Your task to perform on an android device: Add "usb-a" to the cart on ebay Image 0: 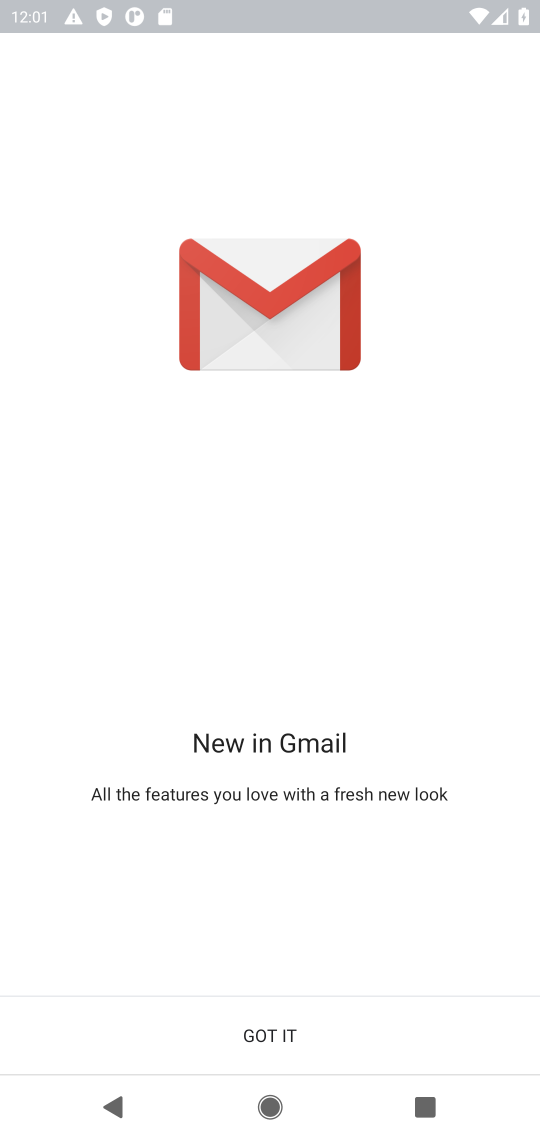
Step 0: press home button
Your task to perform on an android device: Add "usb-a" to the cart on ebay Image 1: 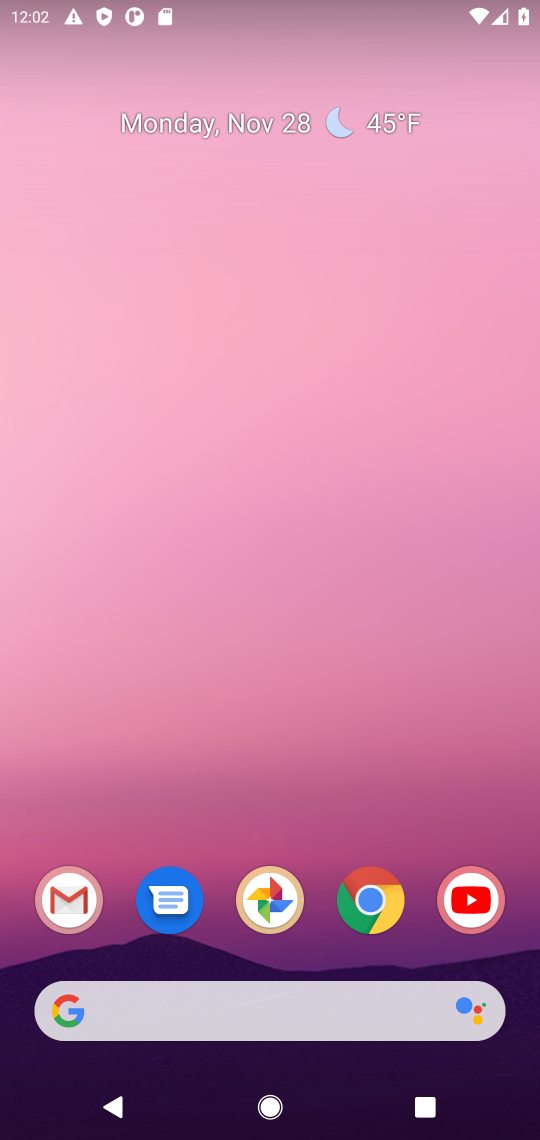
Step 1: click (365, 913)
Your task to perform on an android device: Add "usb-a" to the cart on ebay Image 2: 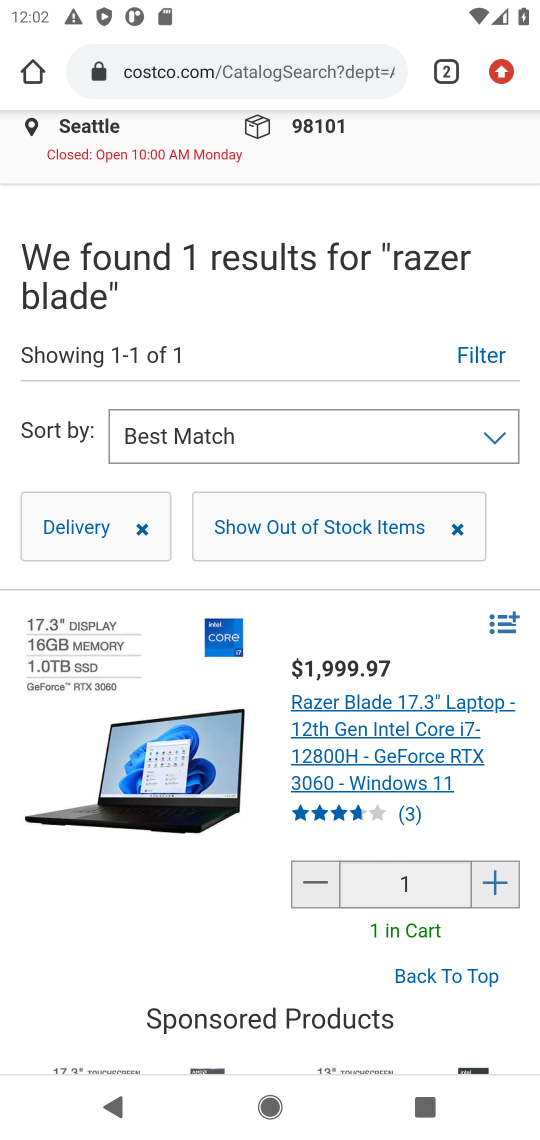
Step 2: click (229, 73)
Your task to perform on an android device: Add "usb-a" to the cart on ebay Image 3: 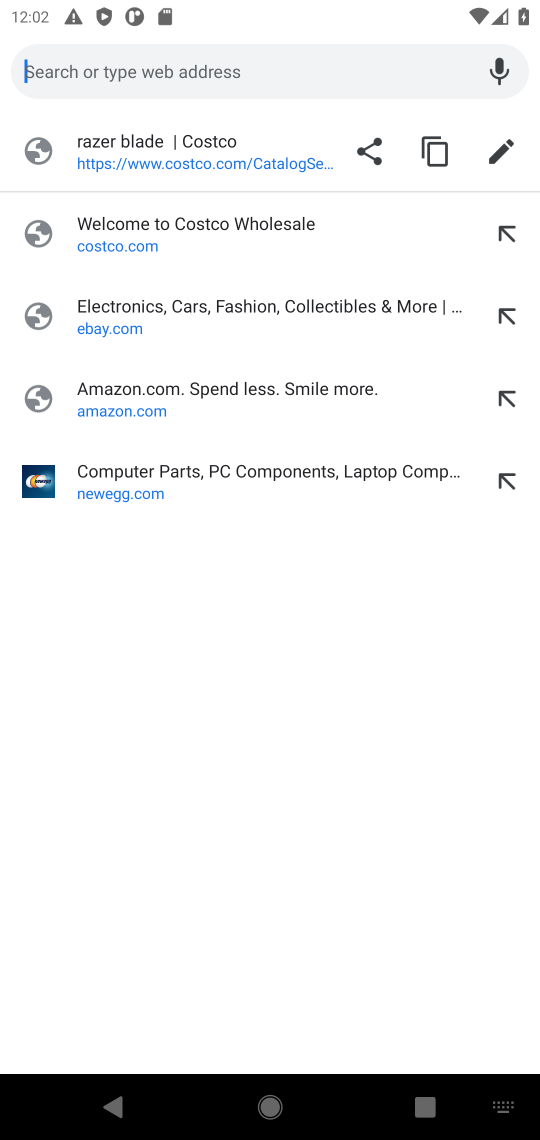
Step 3: click (103, 320)
Your task to perform on an android device: Add "usb-a" to the cart on ebay Image 4: 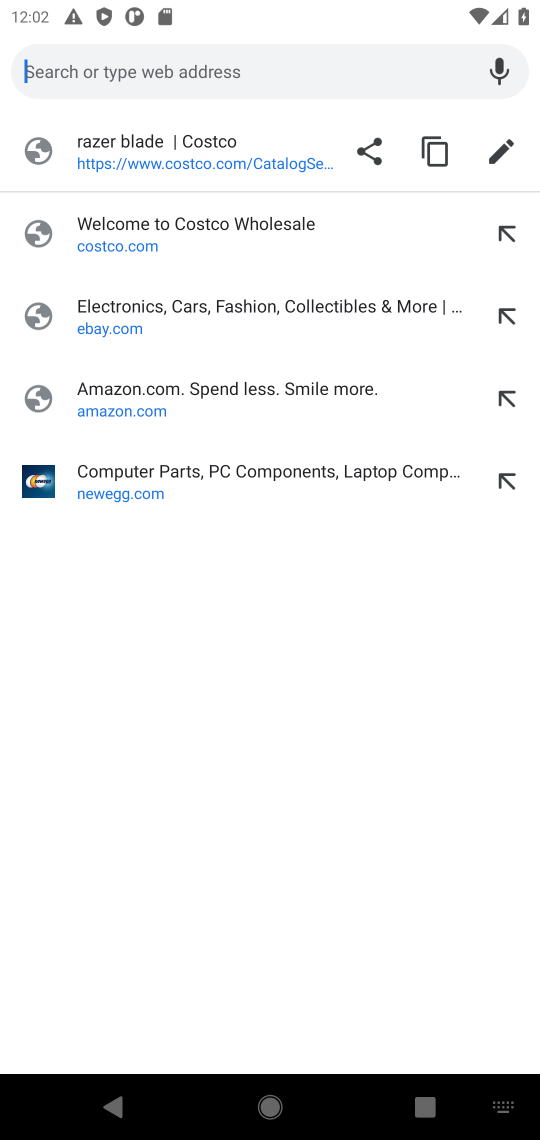
Step 4: click (103, 320)
Your task to perform on an android device: Add "usb-a" to the cart on ebay Image 5: 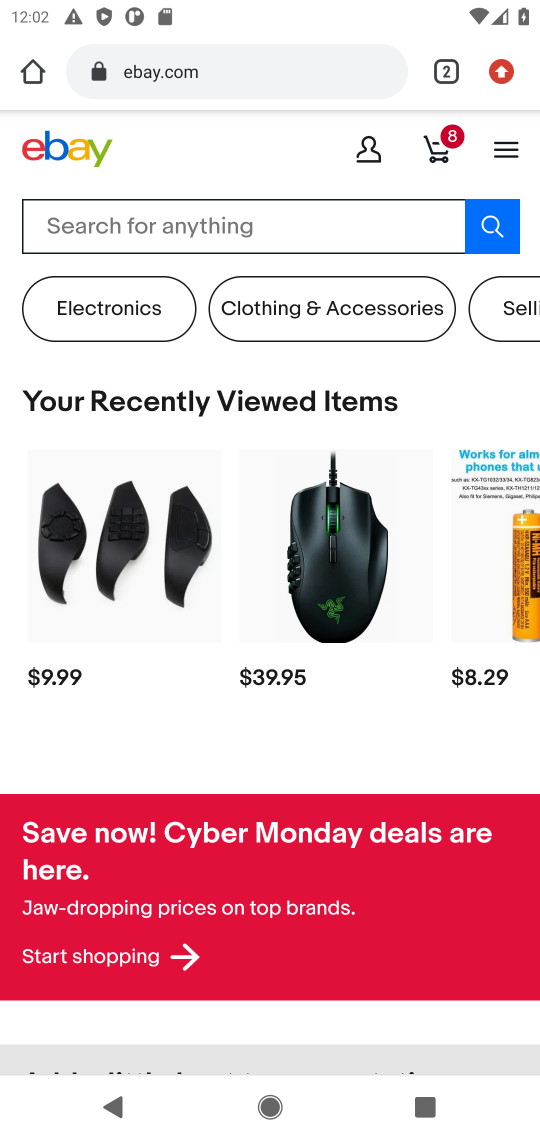
Step 5: click (106, 226)
Your task to perform on an android device: Add "usb-a" to the cart on ebay Image 6: 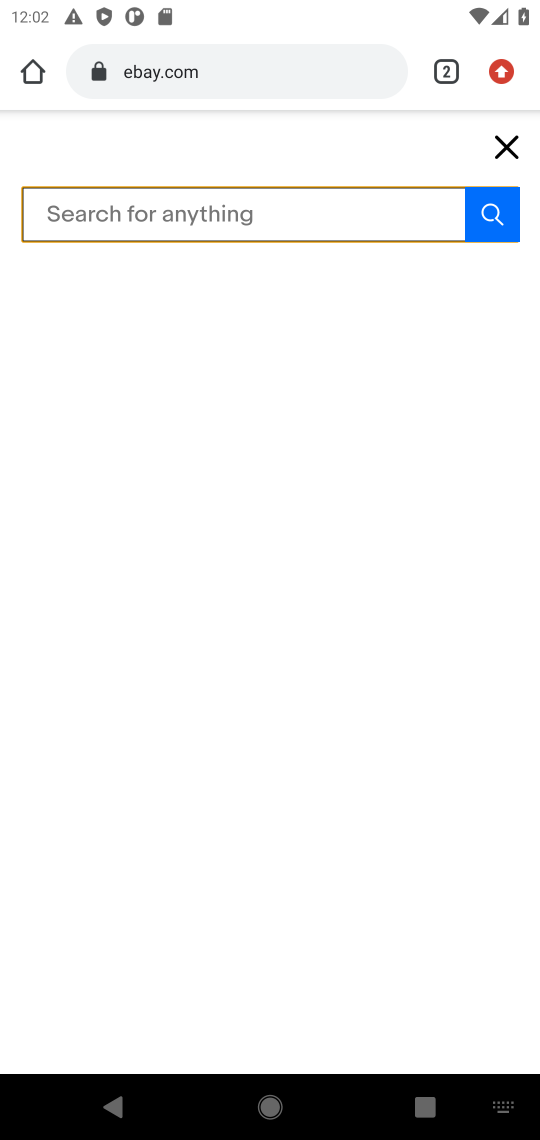
Step 6: type "usb-a"
Your task to perform on an android device: Add "usb-a" to the cart on ebay Image 7: 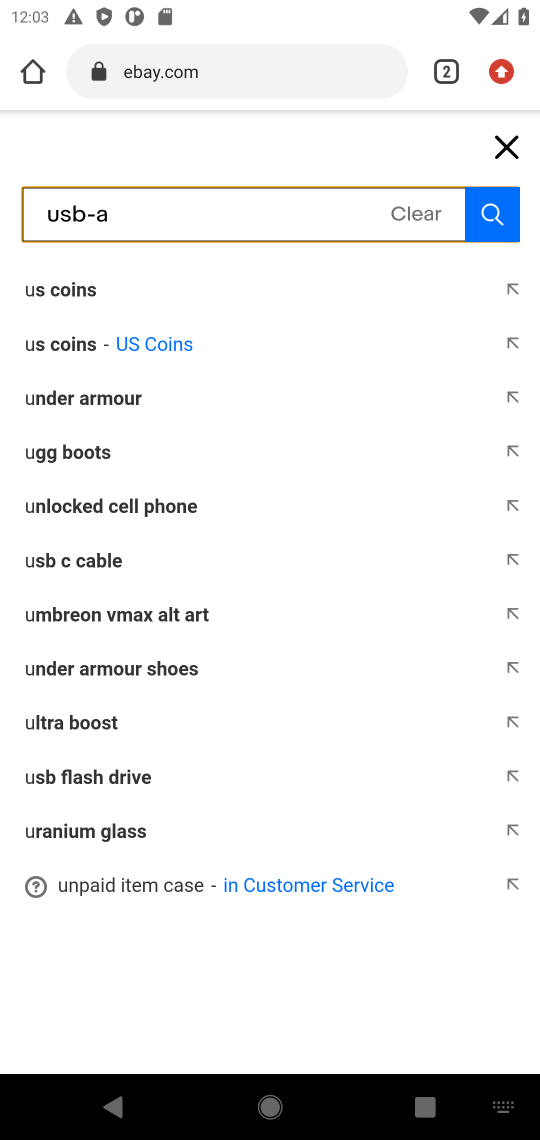
Step 7: click (491, 207)
Your task to perform on an android device: Add "usb-a" to the cart on ebay Image 8: 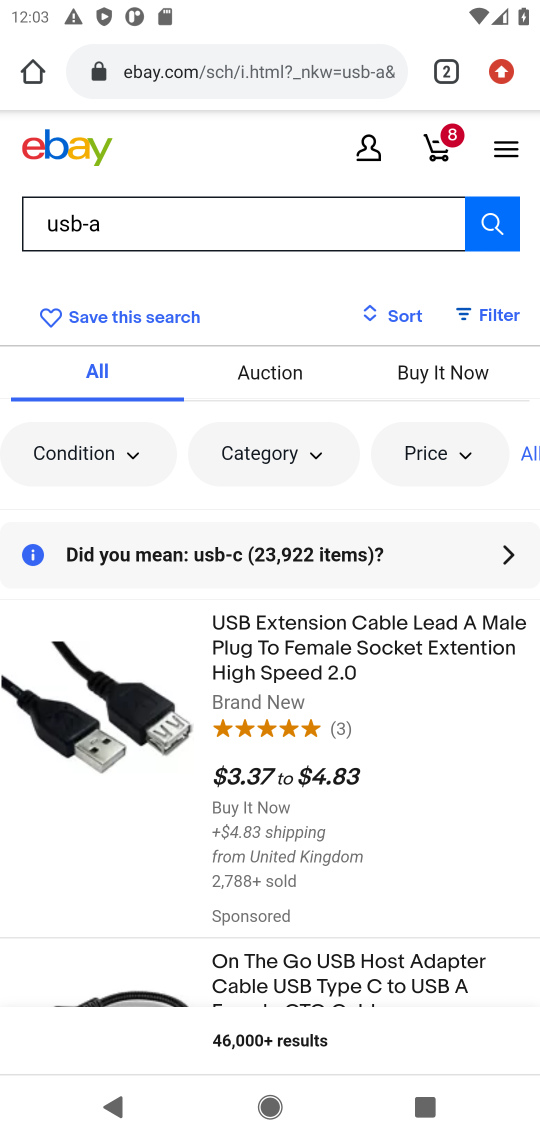
Step 8: drag from (372, 817) to (390, 515)
Your task to perform on an android device: Add "usb-a" to the cart on ebay Image 9: 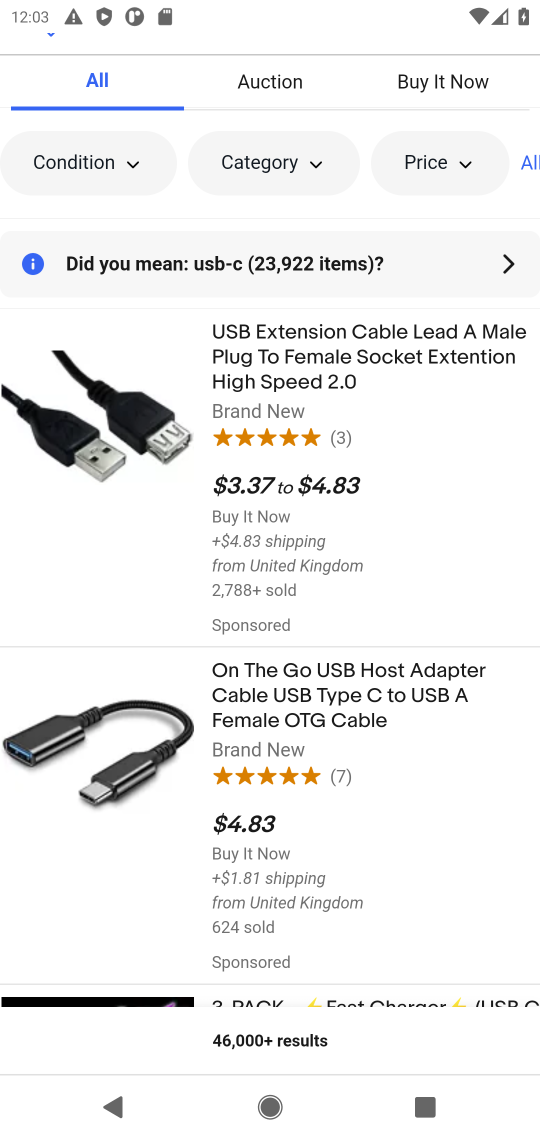
Step 9: drag from (340, 812) to (346, 491)
Your task to perform on an android device: Add "usb-a" to the cart on ebay Image 10: 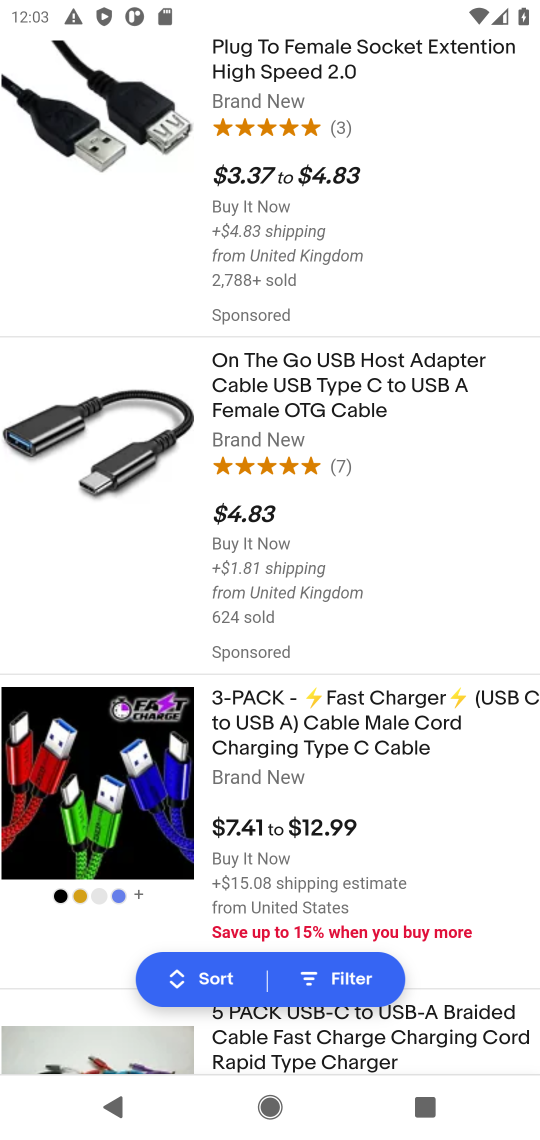
Step 10: click (263, 391)
Your task to perform on an android device: Add "usb-a" to the cart on ebay Image 11: 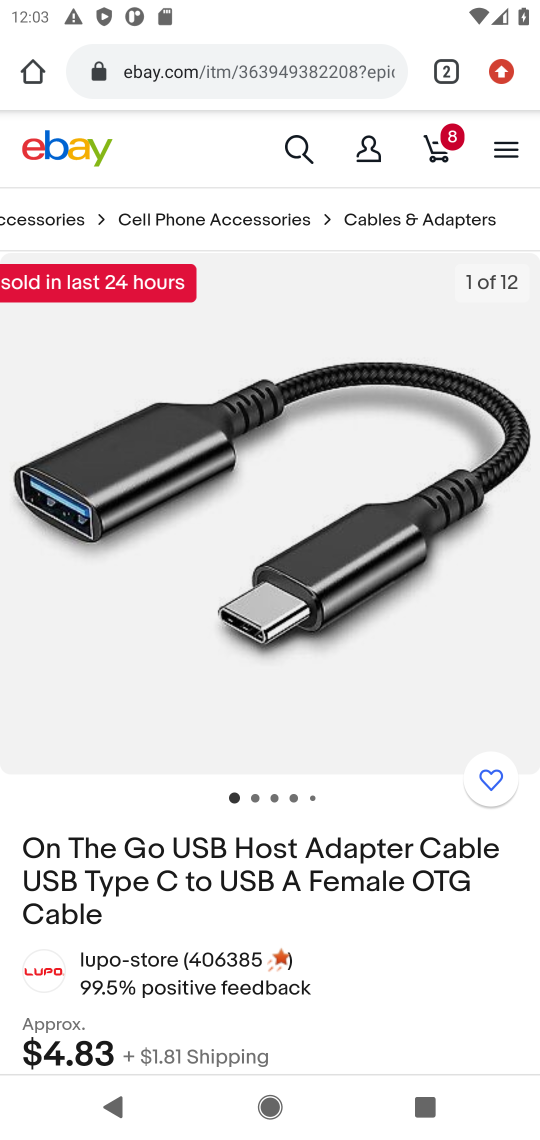
Step 11: drag from (275, 861) to (289, 463)
Your task to perform on an android device: Add "usb-a" to the cart on ebay Image 12: 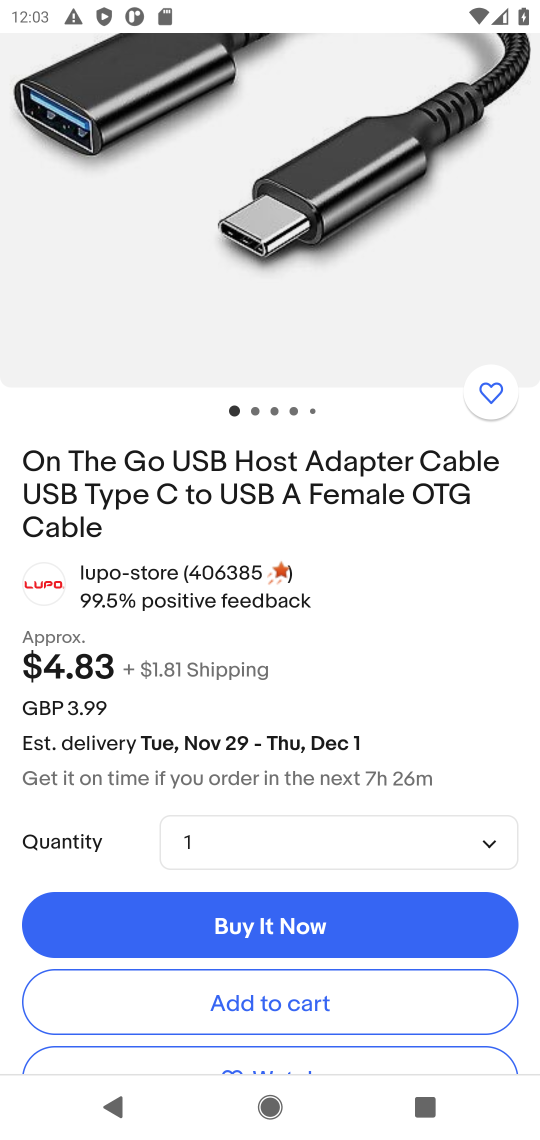
Step 12: drag from (218, 777) to (233, 521)
Your task to perform on an android device: Add "usb-a" to the cart on ebay Image 13: 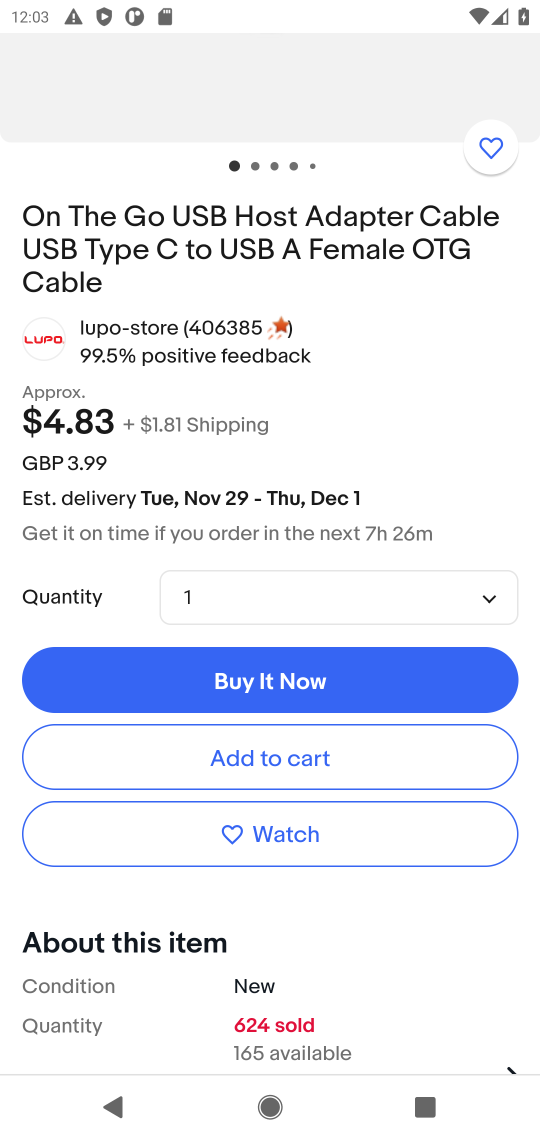
Step 13: click (242, 754)
Your task to perform on an android device: Add "usb-a" to the cart on ebay Image 14: 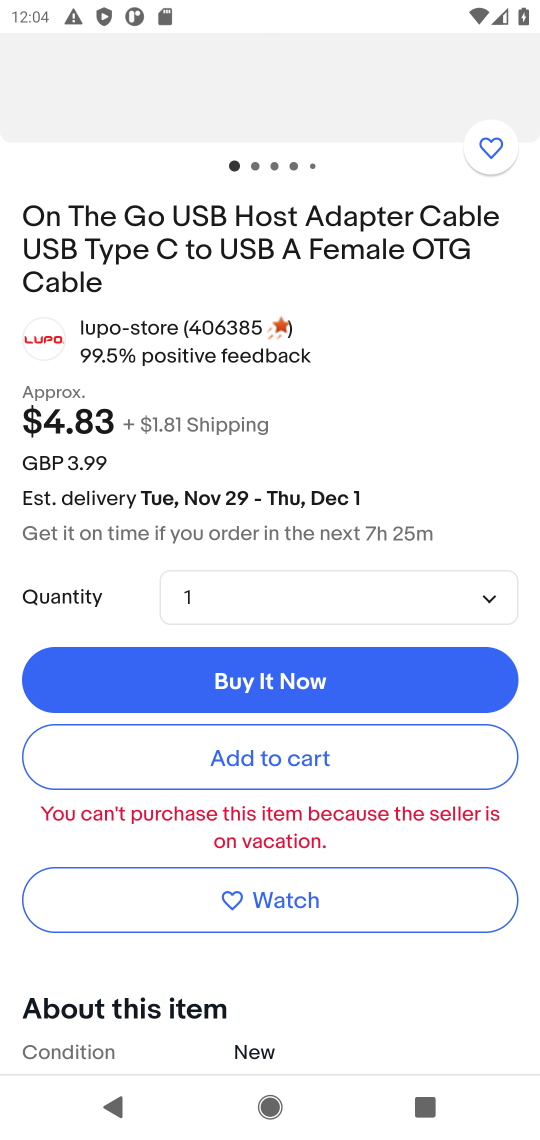
Step 14: press back button
Your task to perform on an android device: Add "usb-a" to the cart on ebay Image 15: 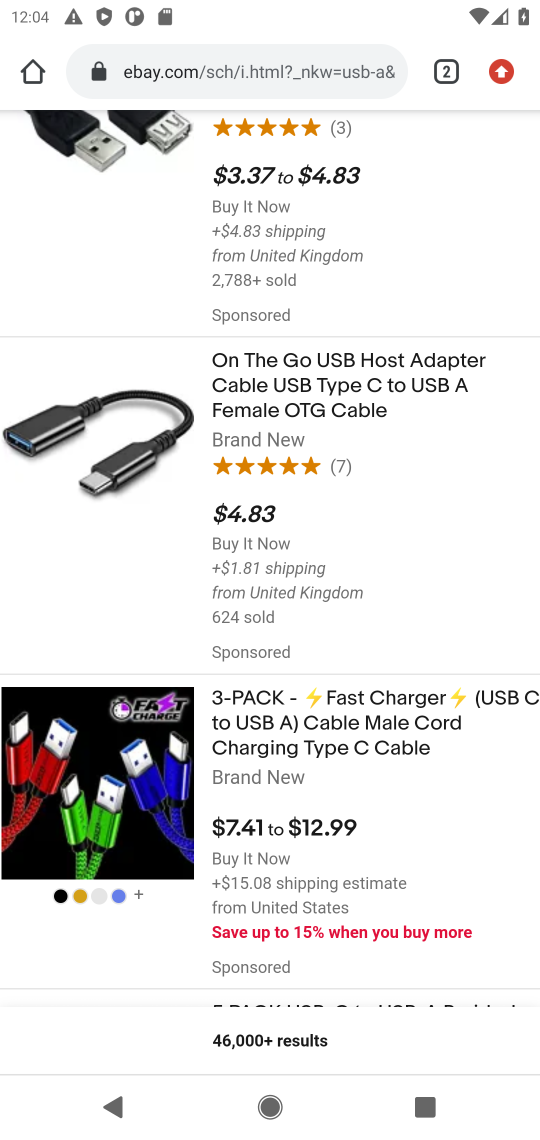
Step 15: drag from (247, 747) to (333, 402)
Your task to perform on an android device: Add "usb-a" to the cart on ebay Image 16: 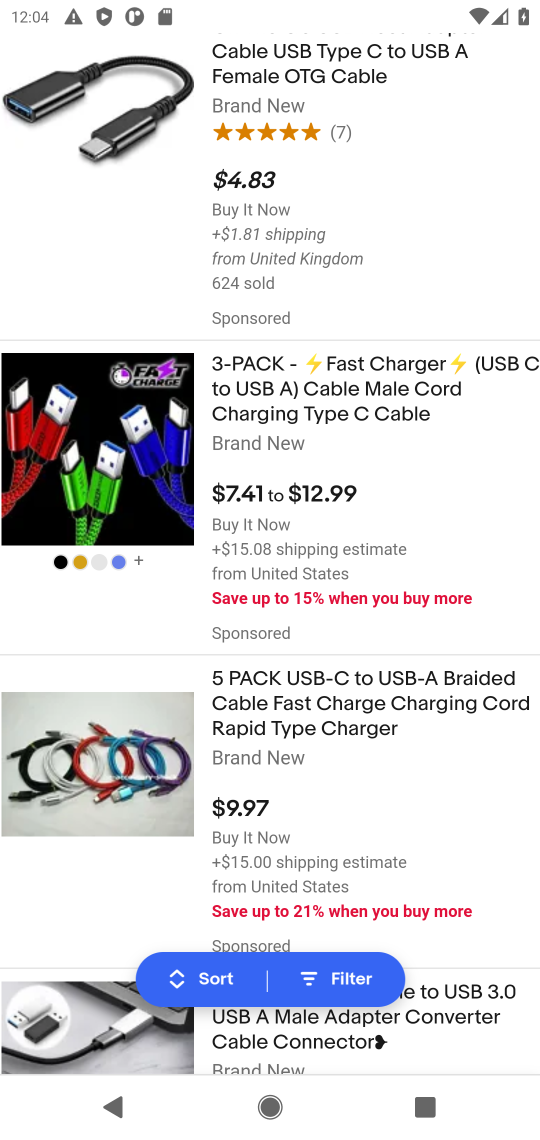
Step 16: drag from (305, 751) to (334, 306)
Your task to perform on an android device: Add "usb-a" to the cart on ebay Image 17: 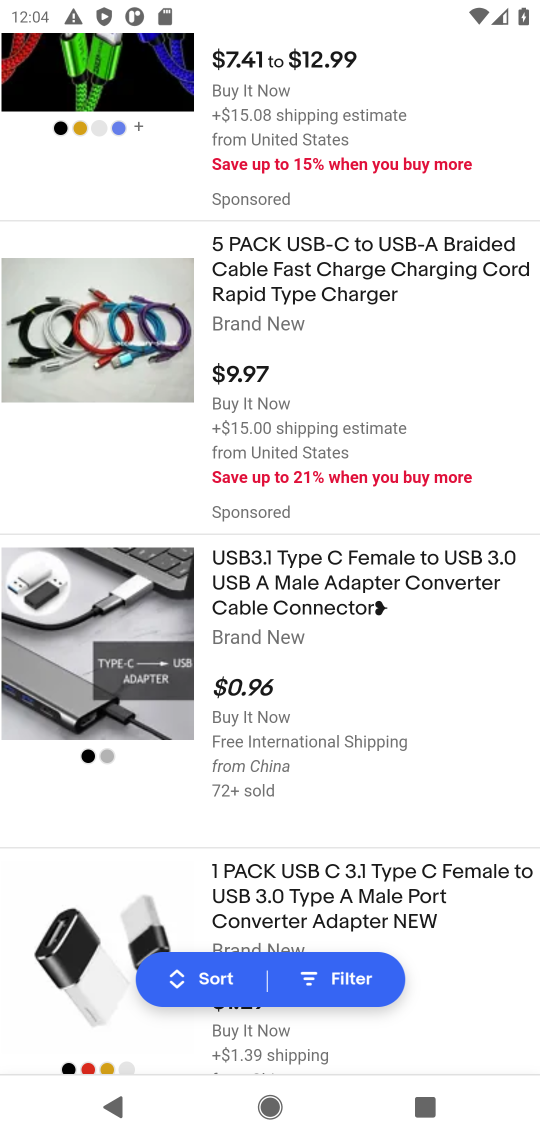
Step 17: click (245, 620)
Your task to perform on an android device: Add "usb-a" to the cart on ebay Image 18: 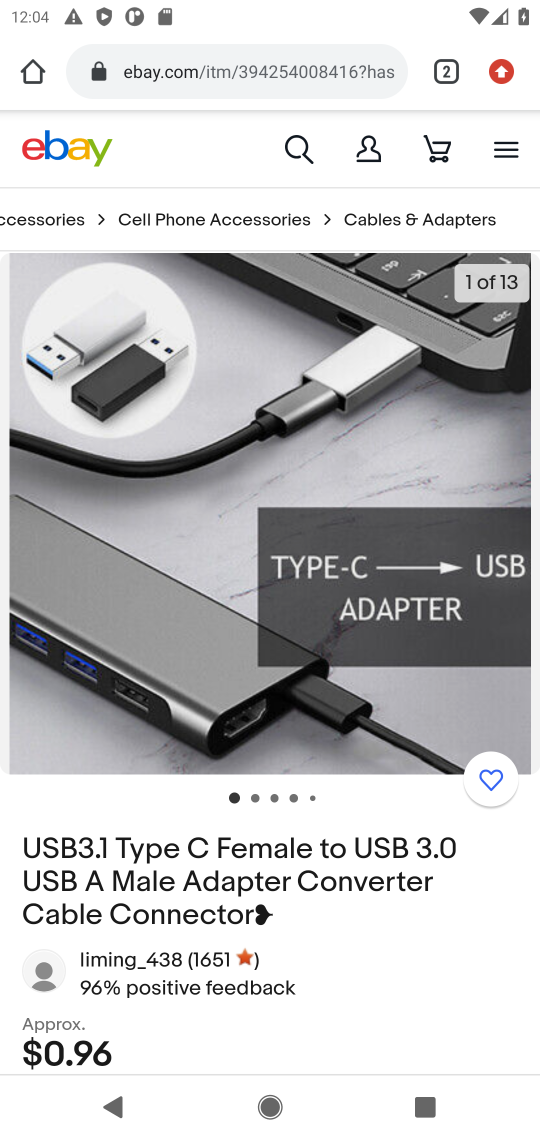
Step 18: drag from (258, 822) to (303, 183)
Your task to perform on an android device: Add "usb-a" to the cart on ebay Image 19: 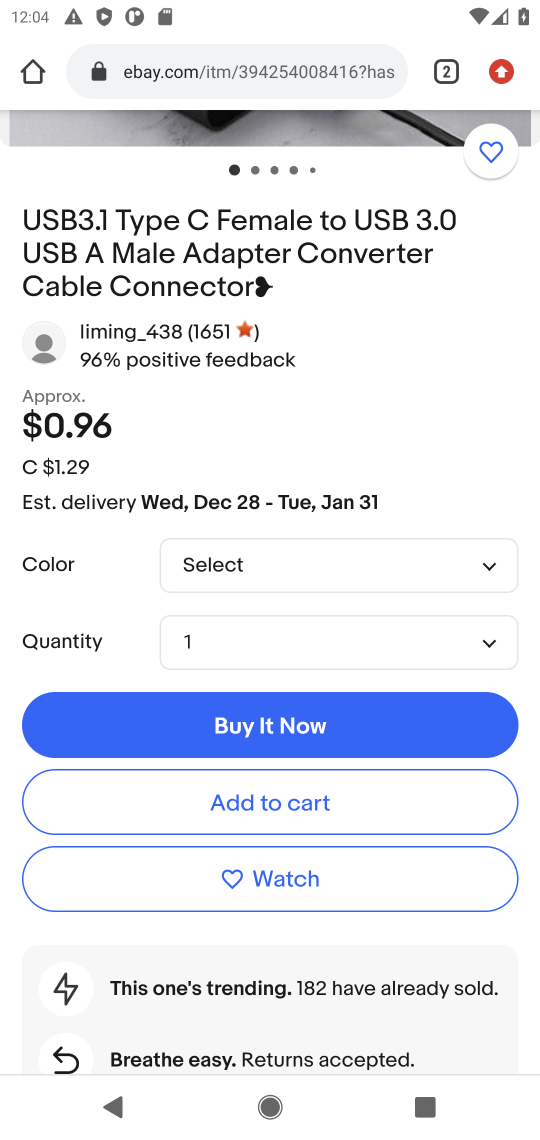
Step 19: click (279, 815)
Your task to perform on an android device: Add "usb-a" to the cart on ebay Image 20: 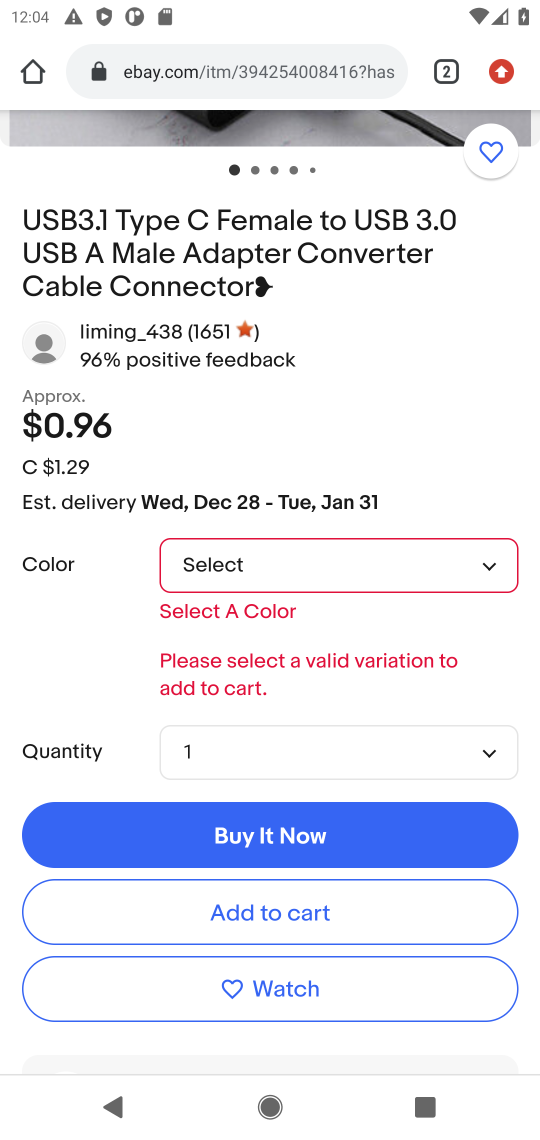
Step 20: click (482, 568)
Your task to perform on an android device: Add "usb-a" to the cart on ebay Image 21: 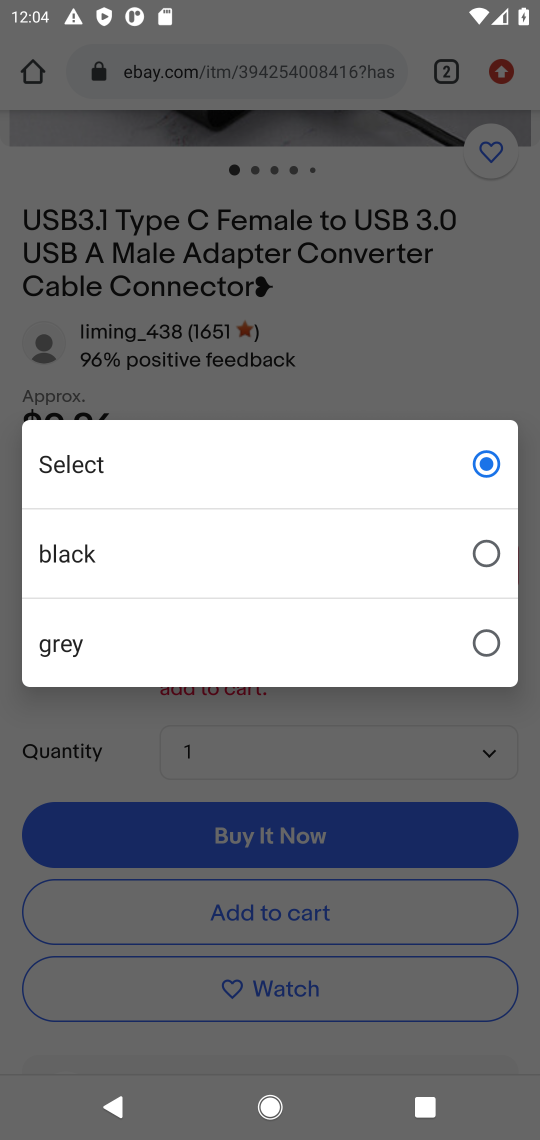
Step 21: click (75, 562)
Your task to perform on an android device: Add "usb-a" to the cart on ebay Image 22: 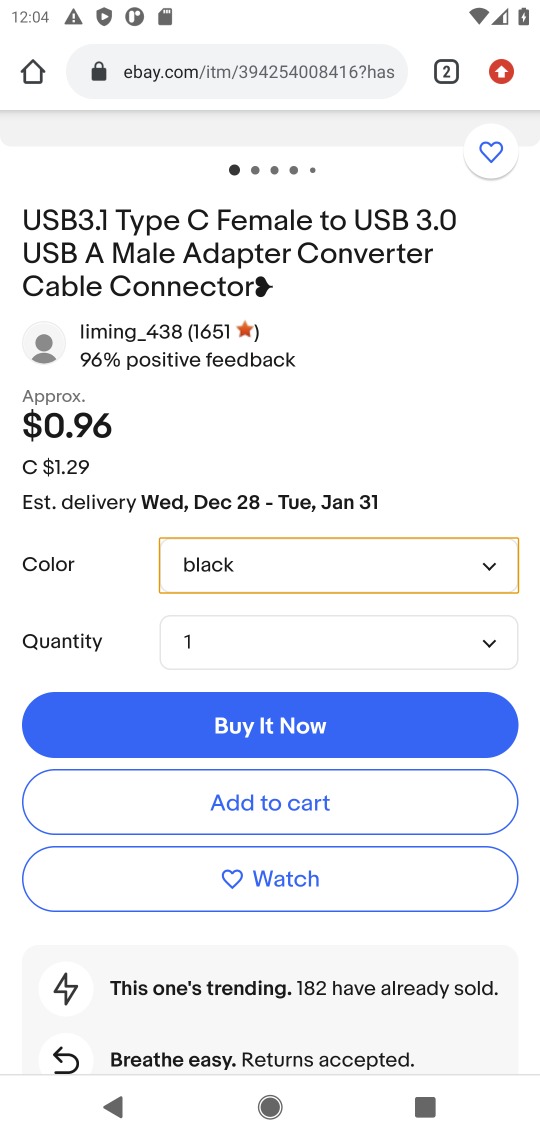
Step 22: click (280, 806)
Your task to perform on an android device: Add "usb-a" to the cart on ebay Image 23: 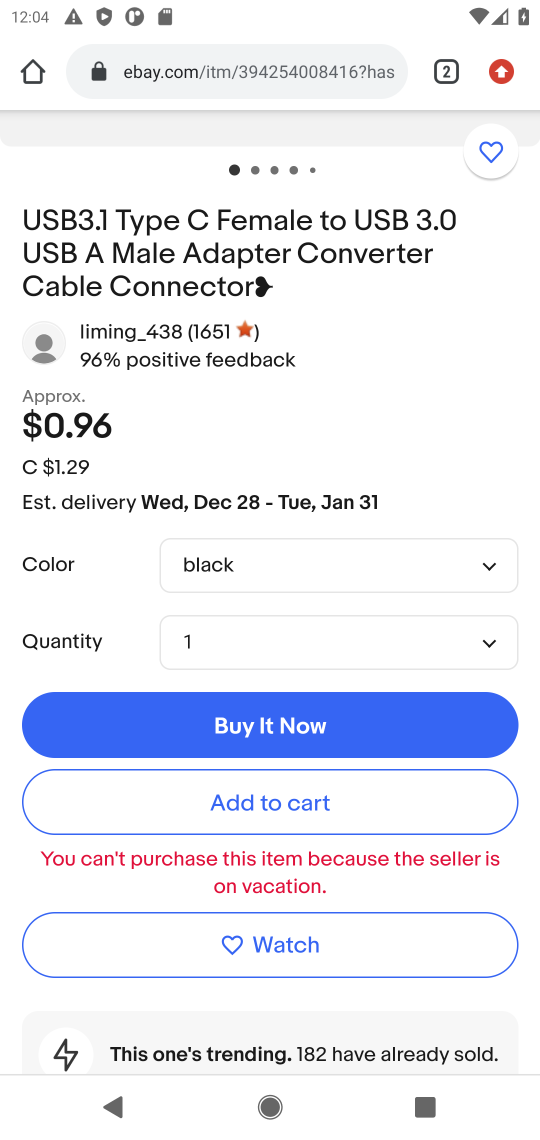
Step 23: task complete